Your task to perform on an android device: Show me popular videos on Youtube Image 0: 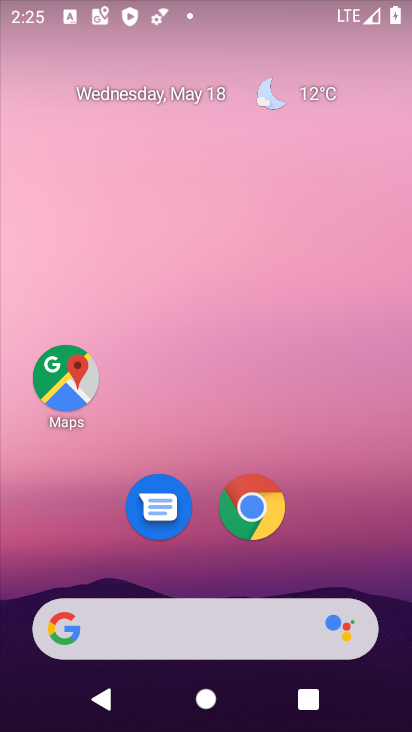
Step 0: drag from (399, 612) to (331, 90)
Your task to perform on an android device: Show me popular videos on Youtube Image 1: 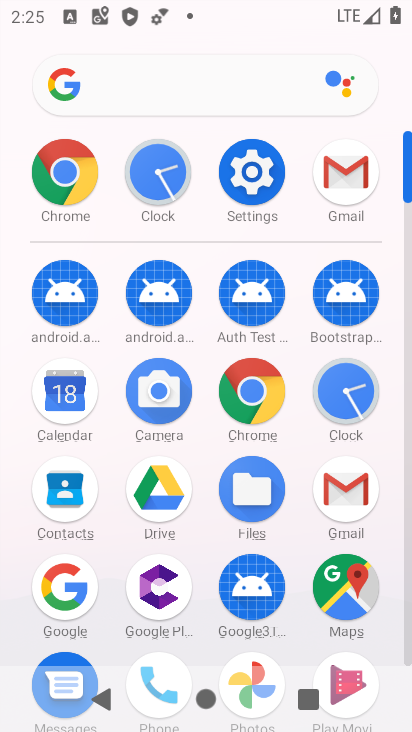
Step 1: click (403, 647)
Your task to perform on an android device: Show me popular videos on Youtube Image 2: 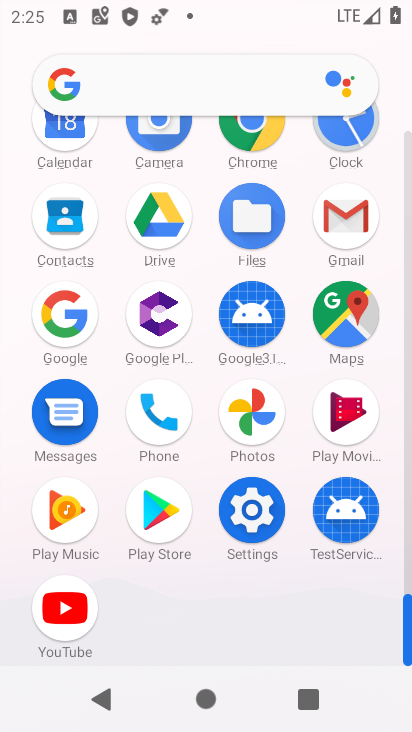
Step 2: click (62, 606)
Your task to perform on an android device: Show me popular videos on Youtube Image 3: 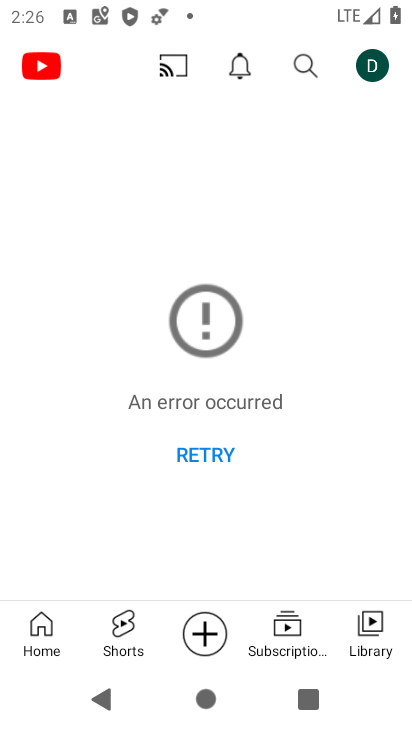
Step 3: task complete